Your task to perform on an android device: add a contact in the contacts app Image 0: 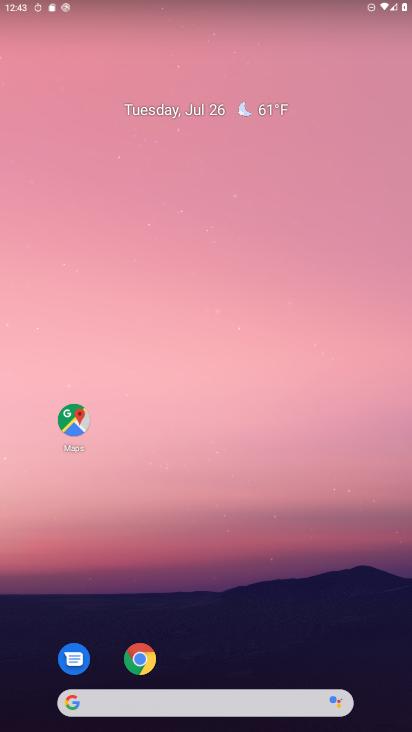
Step 0: click (152, 288)
Your task to perform on an android device: add a contact in the contacts app Image 1: 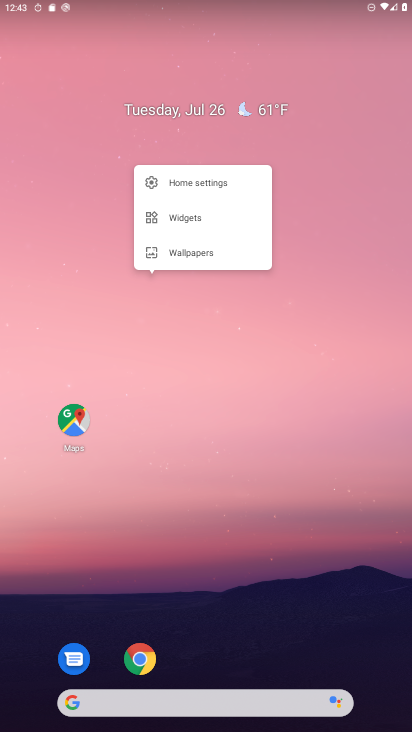
Step 1: drag from (27, 723) to (222, 4)
Your task to perform on an android device: add a contact in the contacts app Image 2: 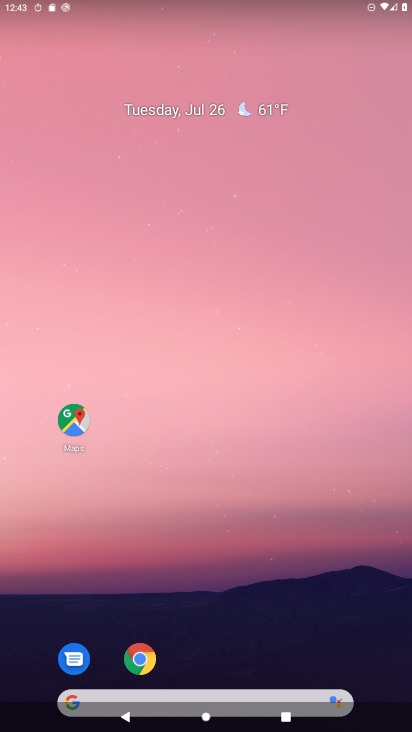
Step 2: drag from (75, 626) to (164, 232)
Your task to perform on an android device: add a contact in the contacts app Image 3: 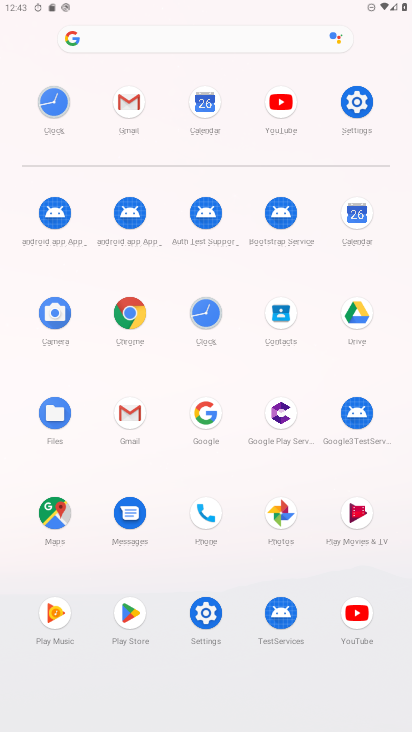
Step 3: click (199, 519)
Your task to perform on an android device: add a contact in the contacts app Image 4: 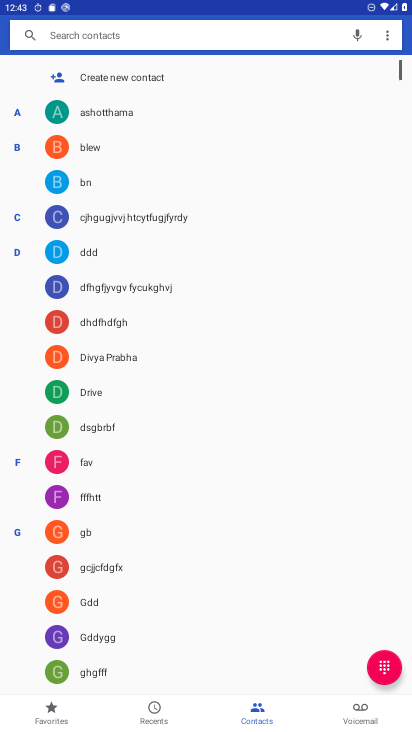
Step 4: click (101, 69)
Your task to perform on an android device: add a contact in the contacts app Image 5: 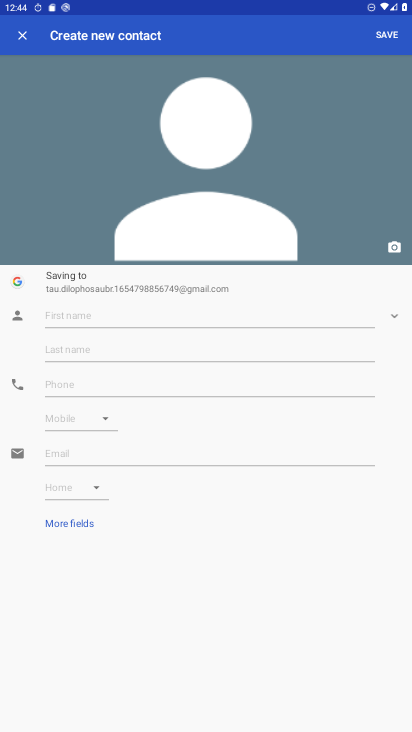
Step 5: click (107, 317)
Your task to perform on an android device: add a contact in the contacts app Image 6: 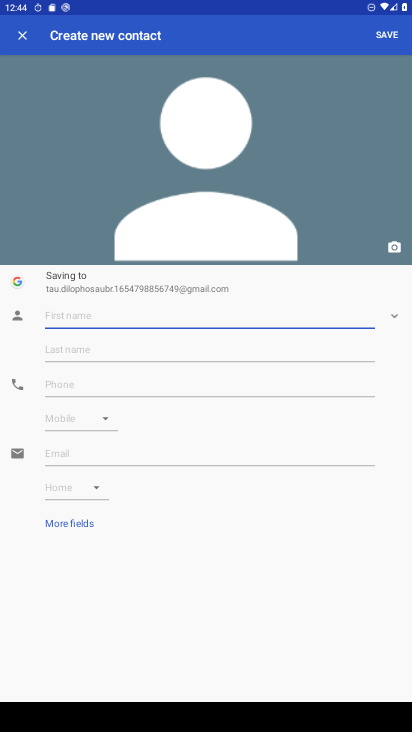
Step 6: type "derhrt"
Your task to perform on an android device: add a contact in the contacts app Image 7: 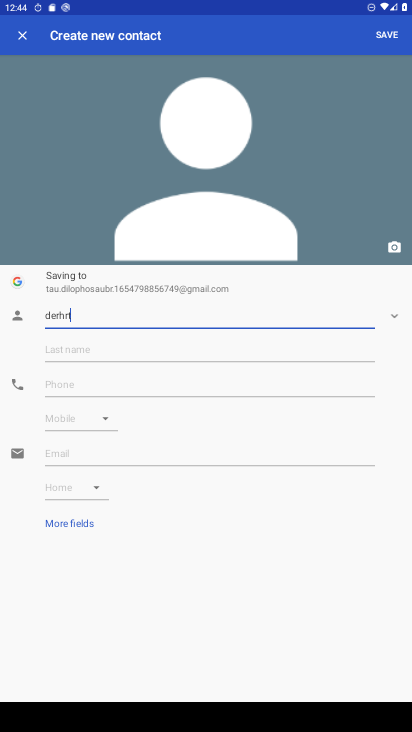
Step 7: type ""
Your task to perform on an android device: add a contact in the contacts app Image 8: 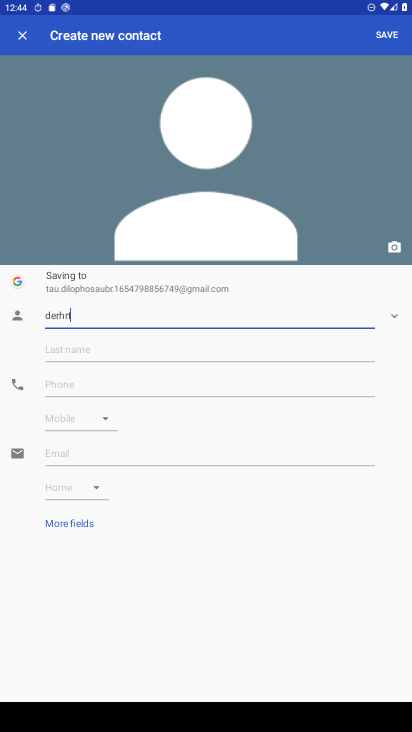
Step 8: click (386, 22)
Your task to perform on an android device: add a contact in the contacts app Image 9: 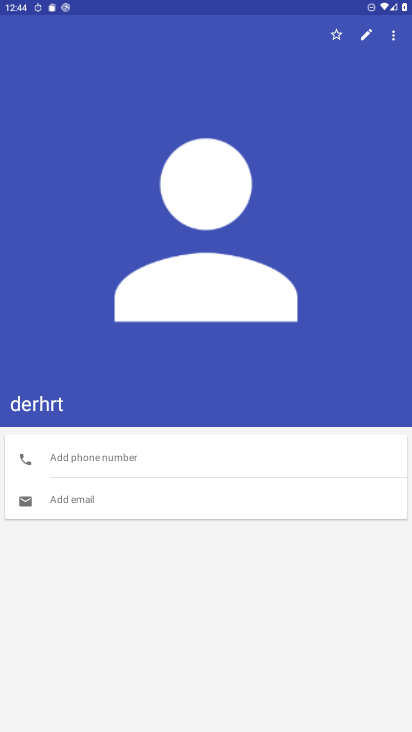
Step 9: task complete